Your task to perform on an android device: Do I have any events today? Image 0: 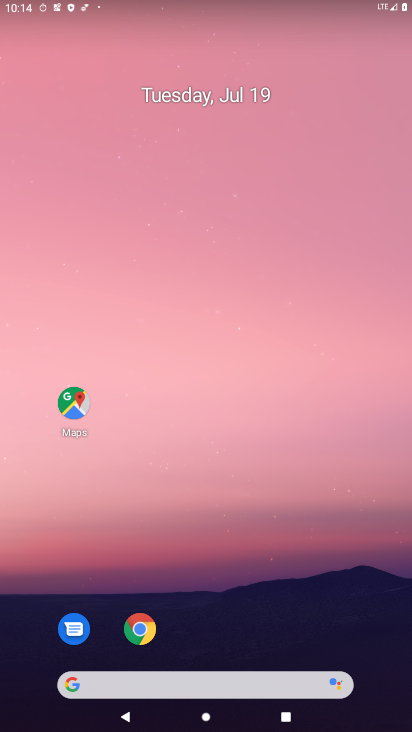
Step 0: drag from (220, 600) to (248, 73)
Your task to perform on an android device: Do I have any events today? Image 1: 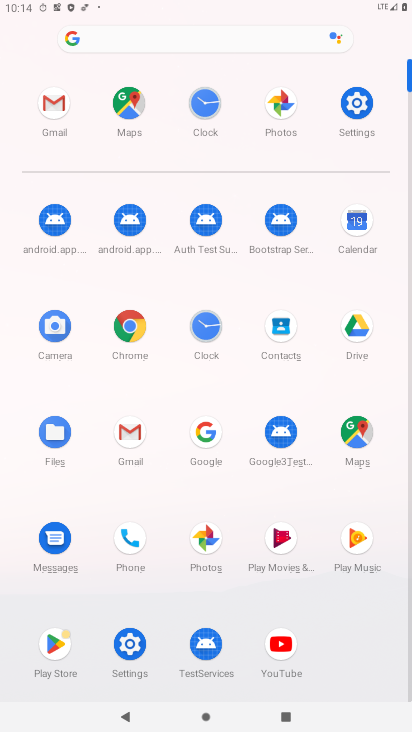
Step 1: click (359, 236)
Your task to perform on an android device: Do I have any events today? Image 2: 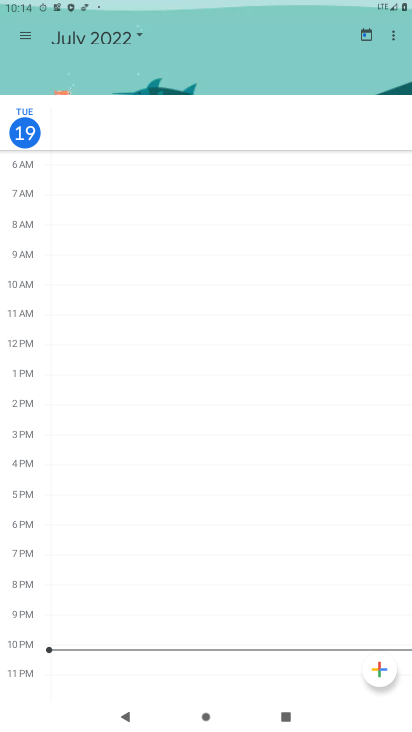
Step 2: click (23, 30)
Your task to perform on an android device: Do I have any events today? Image 3: 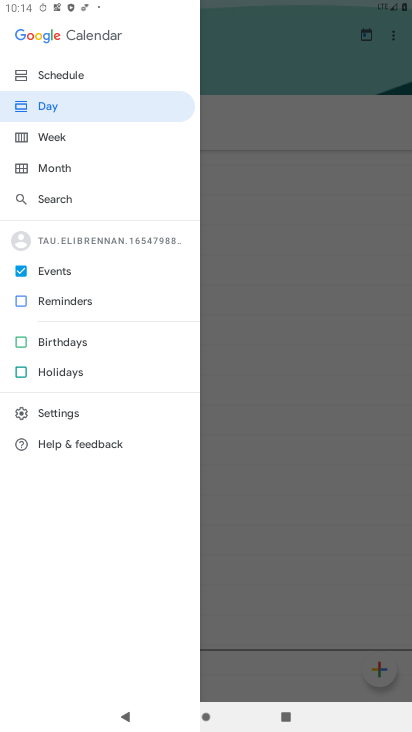
Step 3: click (70, 103)
Your task to perform on an android device: Do I have any events today? Image 4: 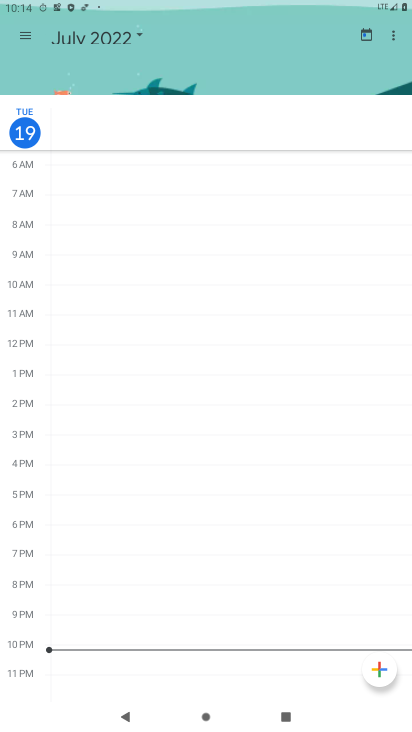
Step 4: task complete